Your task to perform on an android device: Open Google Image 0: 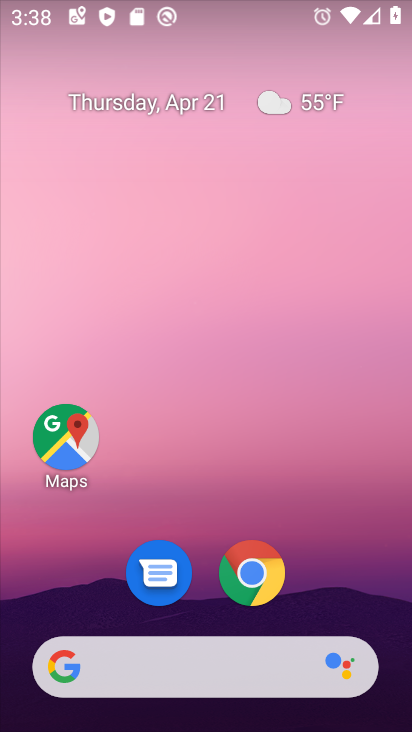
Step 0: click (250, 571)
Your task to perform on an android device: Open Google Image 1: 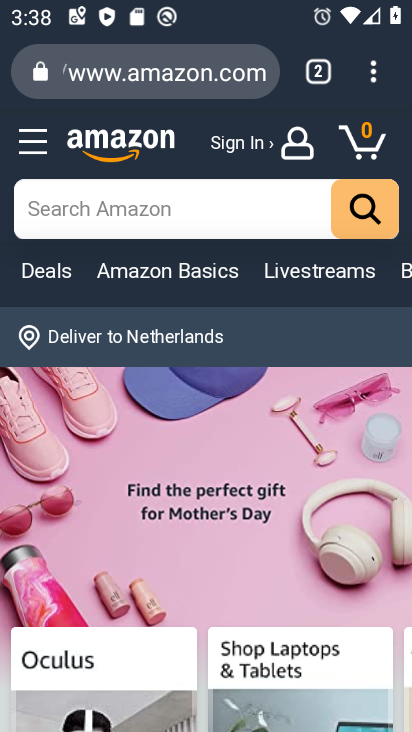
Step 1: task complete